Your task to perform on an android device: Show me the alarms in the clock app Image 0: 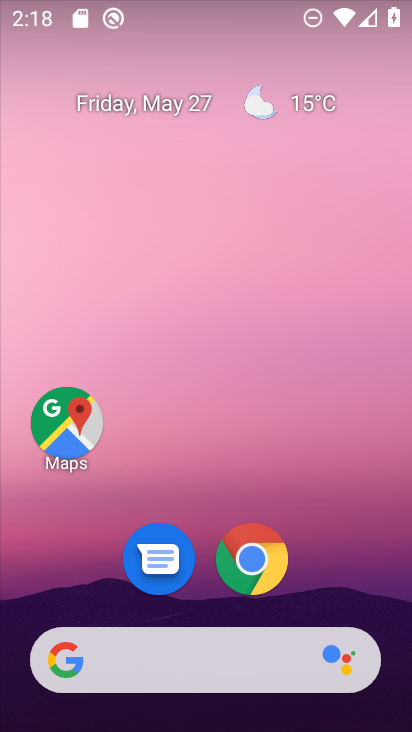
Step 0: drag from (306, 522) to (298, 4)
Your task to perform on an android device: Show me the alarms in the clock app Image 1: 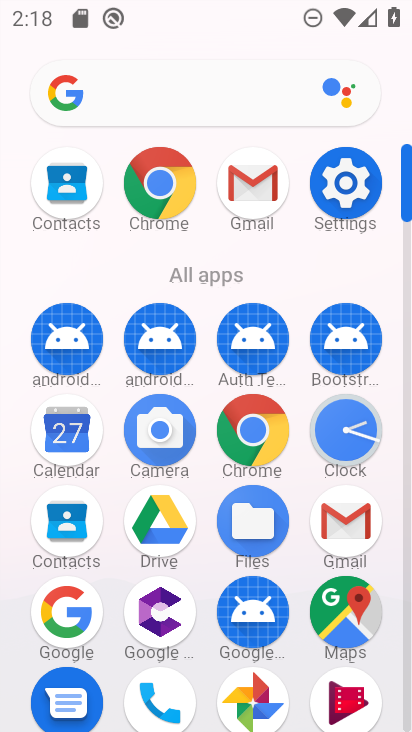
Step 1: click (342, 444)
Your task to perform on an android device: Show me the alarms in the clock app Image 2: 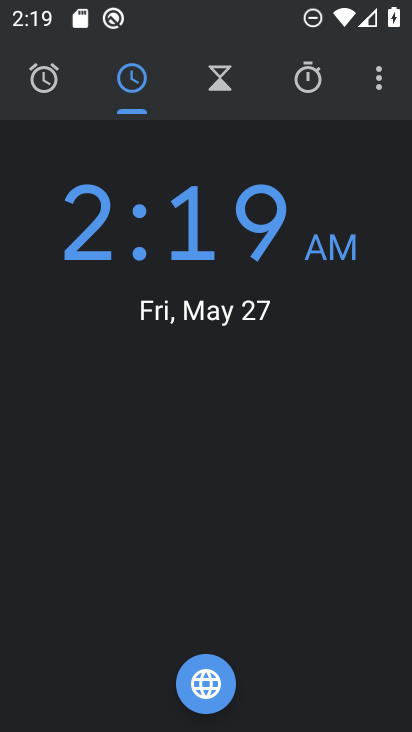
Step 2: click (380, 86)
Your task to perform on an android device: Show me the alarms in the clock app Image 3: 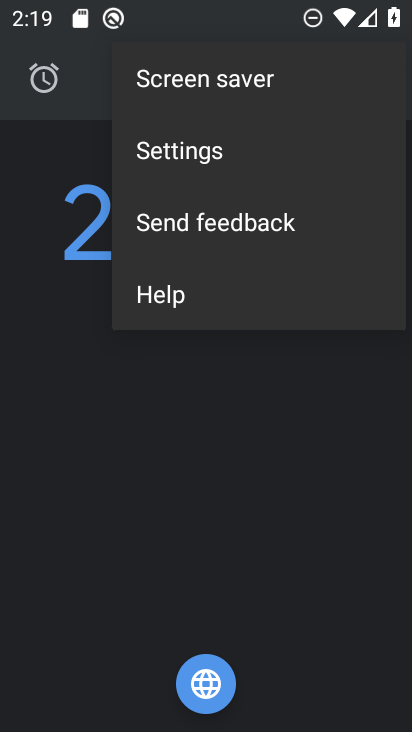
Step 3: click (354, 381)
Your task to perform on an android device: Show me the alarms in the clock app Image 4: 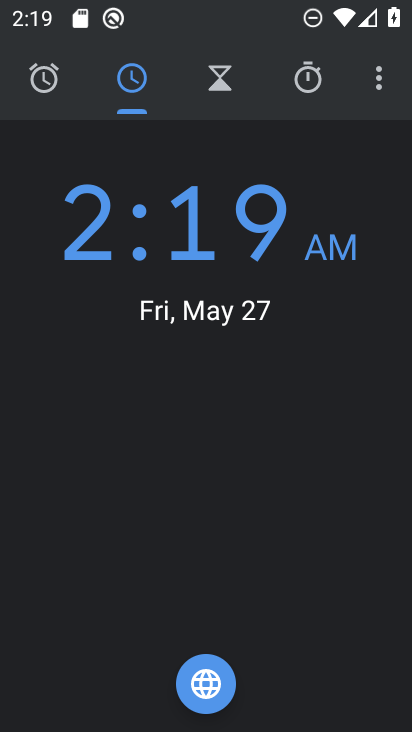
Step 4: click (51, 80)
Your task to perform on an android device: Show me the alarms in the clock app Image 5: 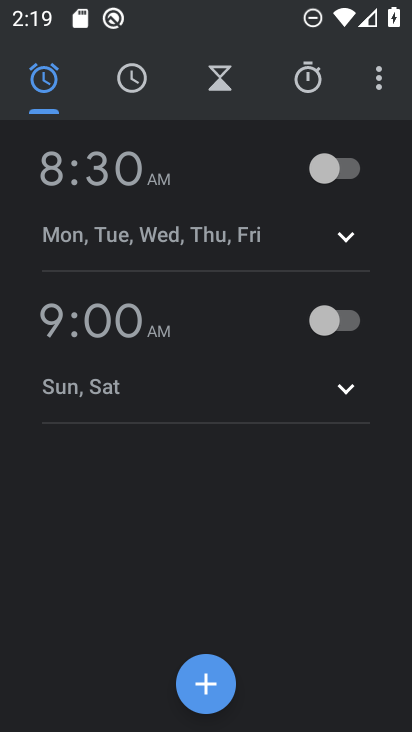
Step 5: task complete